Your task to perform on an android device: Open internet settings Image 0: 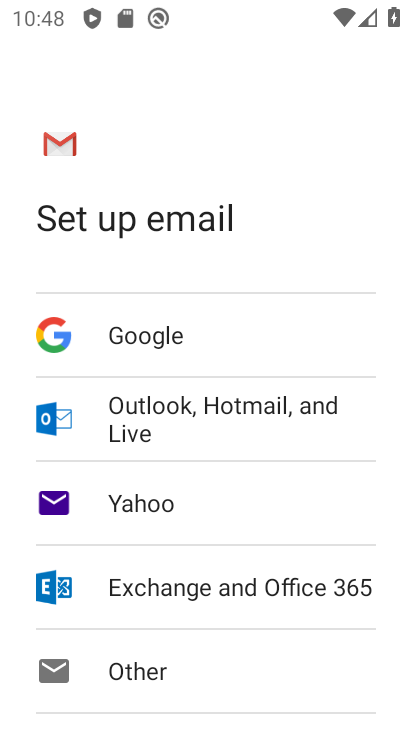
Step 0: press home button
Your task to perform on an android device: Open internet settings Image 1: 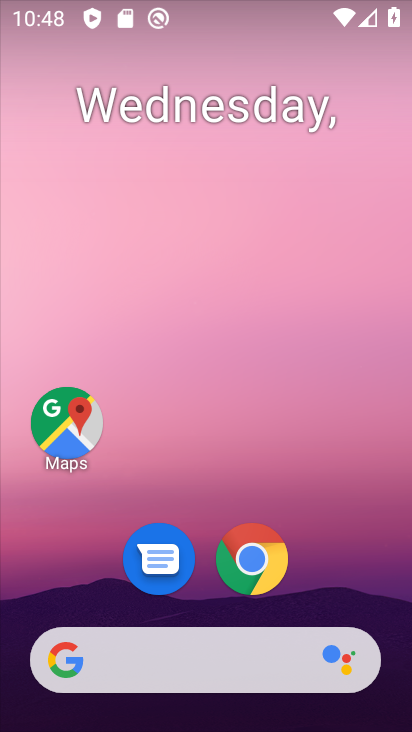
Step 1: drag from (185, 544) to (214, 242)
Your task to perform on an android device: Open internet settings Image 2: 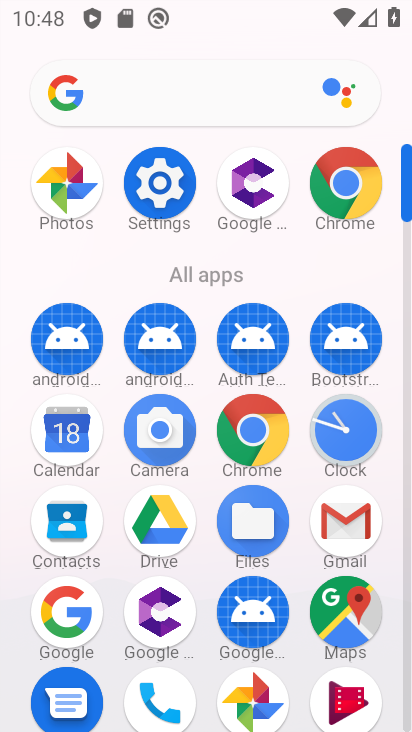
Step 2: click (145, 183)
Your task to perform on an android device: Open internet settings Image 3: 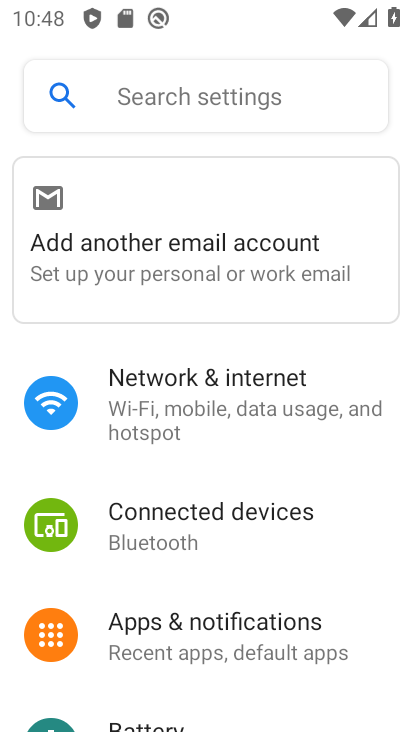
Step 3: click (249, 383)
Your task to perform on an android device: Open internet settings Image 4: 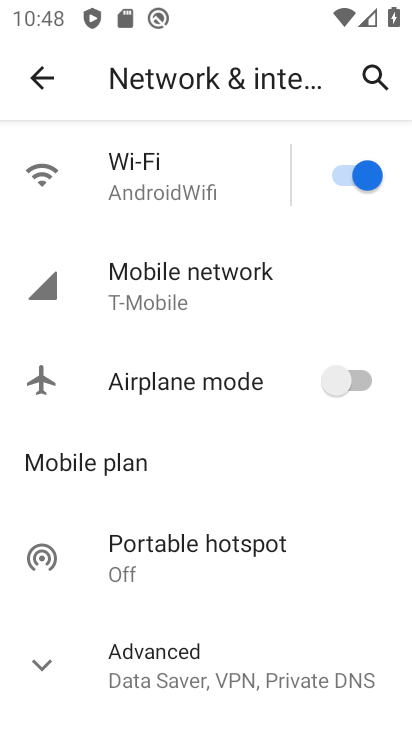
Step 4: click (177, 195)
Your task to perform on an android device: Open internet settings Image 5: 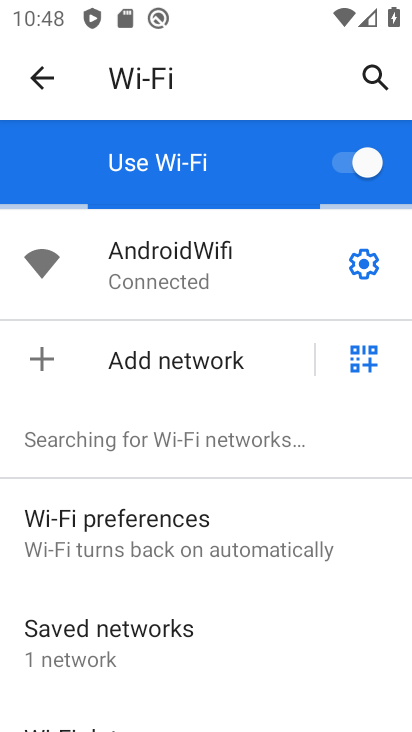
Step 5: task complete